Your task to perform on an android device: Open the web browser Image 0: 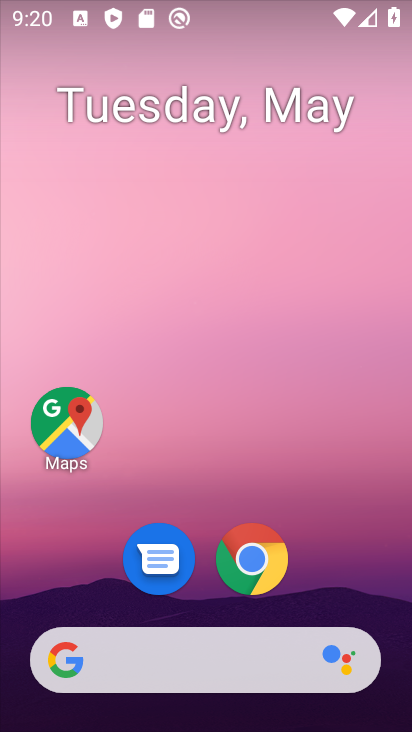
Step 0: click (259, 566)
Your task to perform on an android device: Open the web browser Image 1: 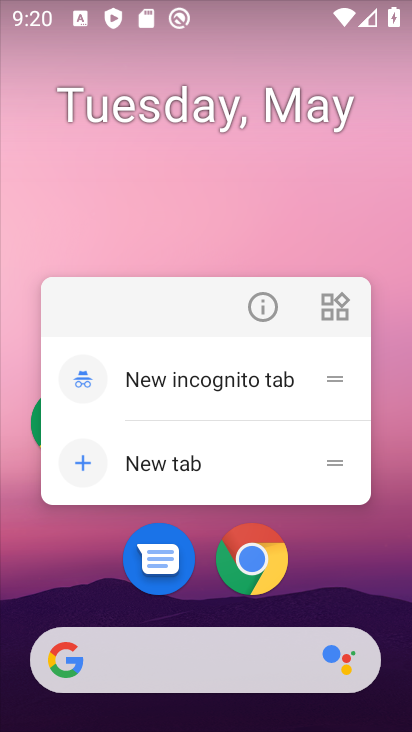
Step 1: click (266, 552)
Your task to perform on an android device: Open the web browser Image 2: 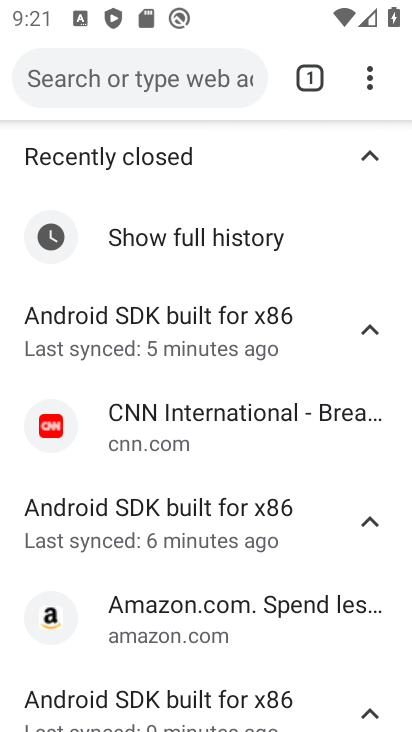
Step 2: press home button
Your task to perform on an android device: Open the web browser Image 3: 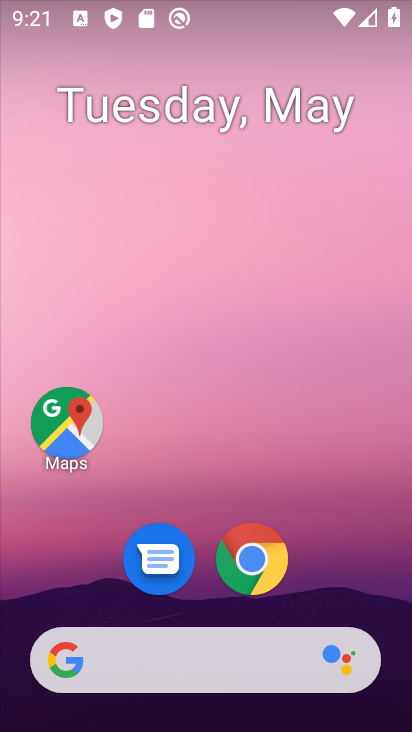
Step 3: click (232, 548)
Your task to perform on an android device: Open the web browser Image 4: 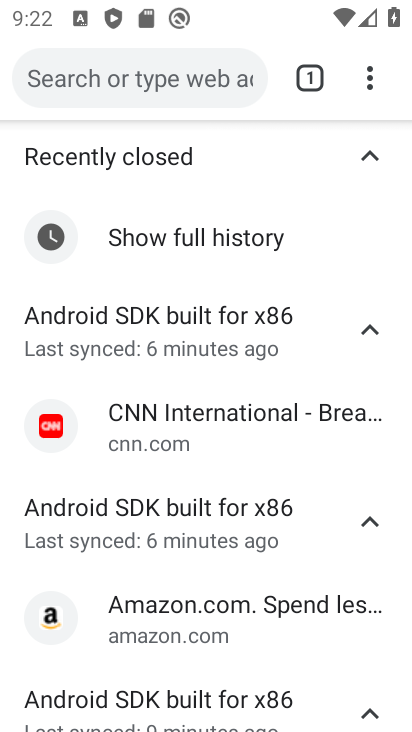
Step 4: press home button
Your task to perform on an android device: Open the web browser Image 5: 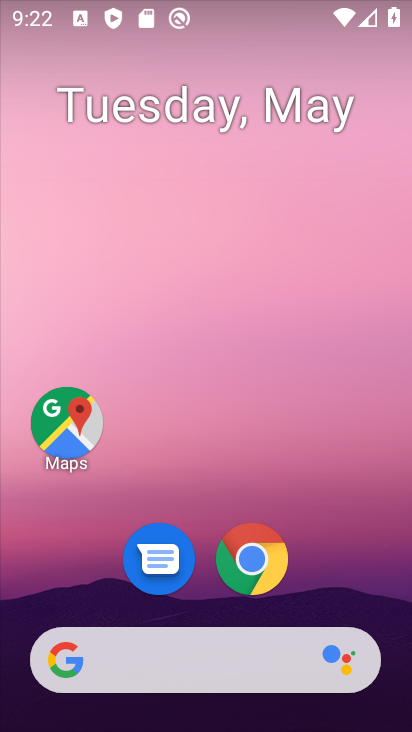
Step 5: click (217, 564)
Your task to perform on an android device: Open the web browser Image 6: 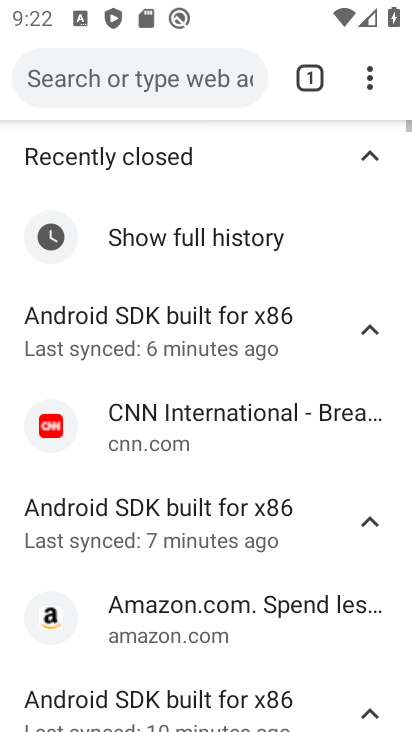
Step 6: task complete